Your task to perform on an android device: Search for "apple airpods" on amazon.com, select the first entry, and add it to the cart. Image 0: 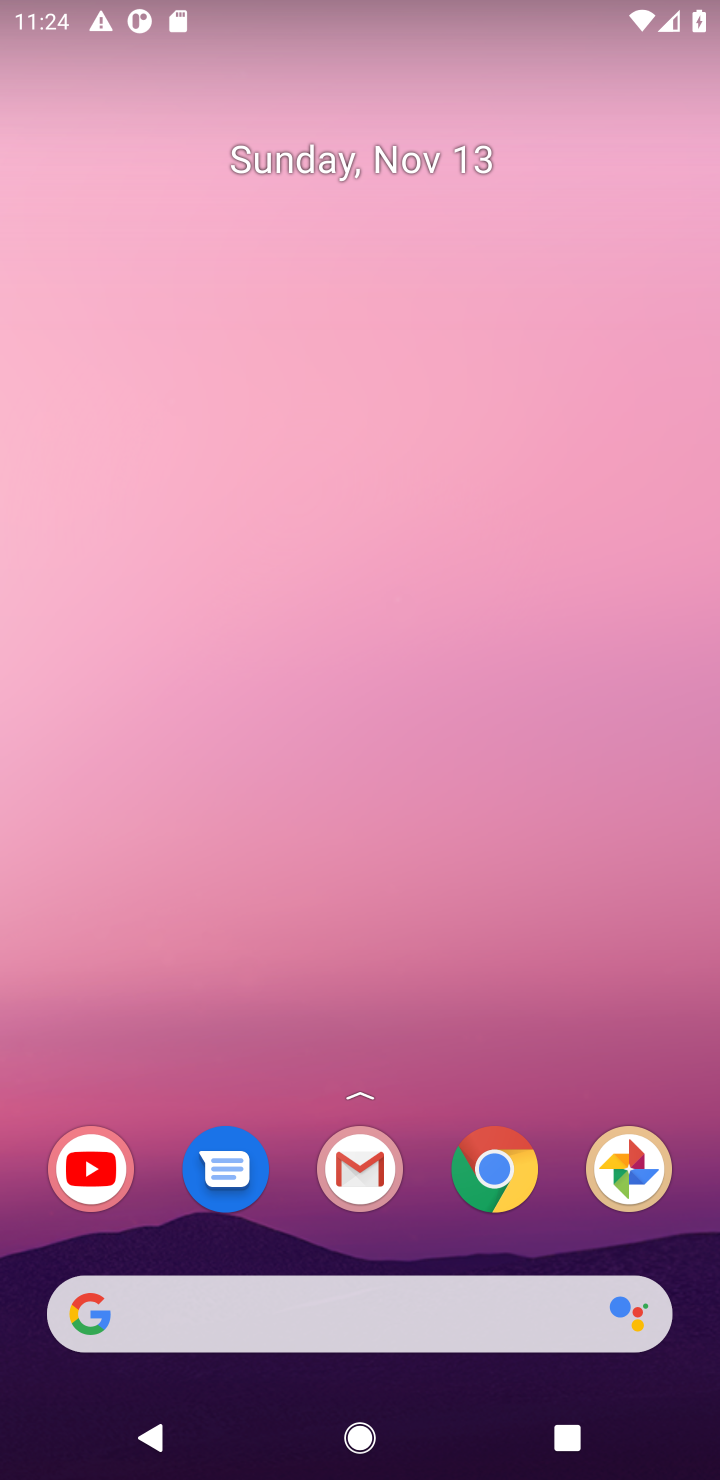
Step 0: drag from (434, 1081) to (551, 66)
Your task to perform on an android device: Search for "apple airpods" on amazon.com, select the first entry, and add it to the cart. Image 1: 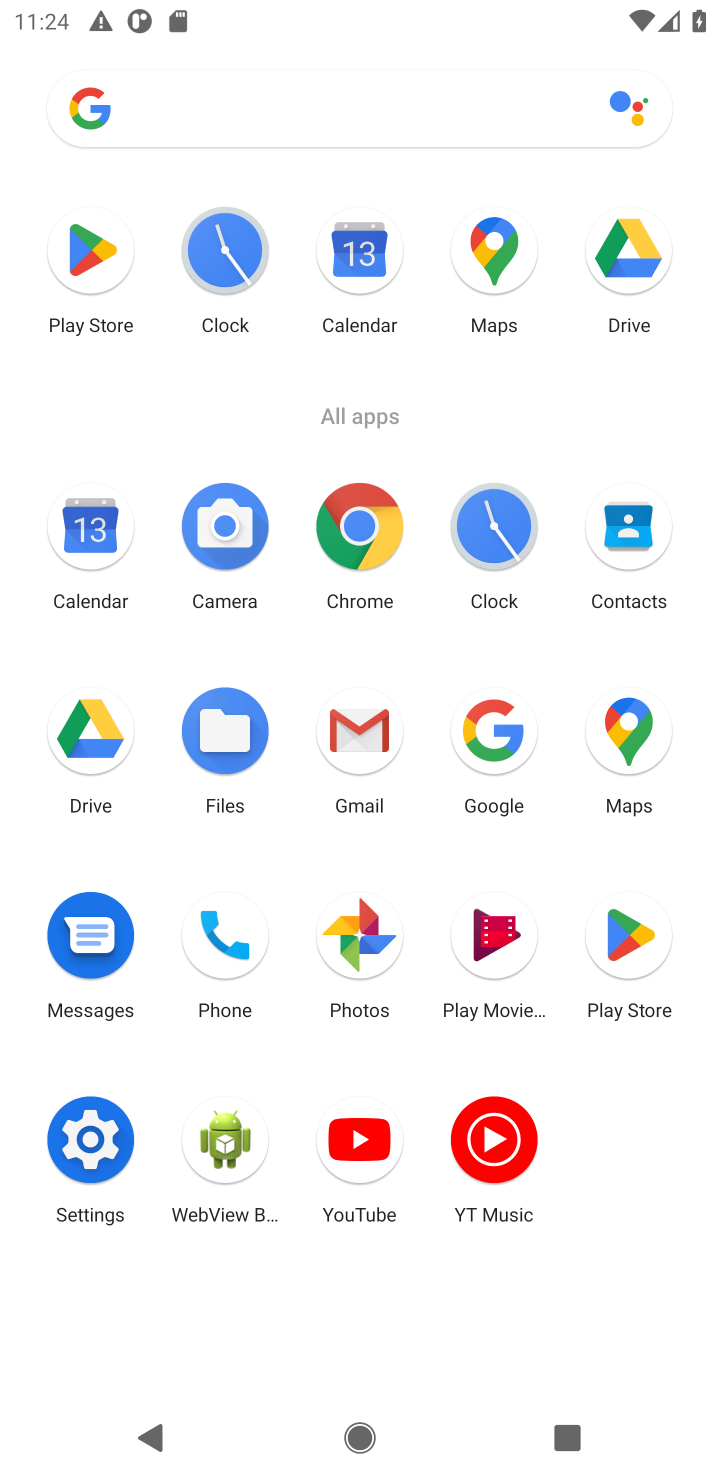
Step 1: click (350, 533)
Your task to perform on an android device: Search for "apple airpods" on amazon.com, select the first entry, and add it to the cart. Image 2: 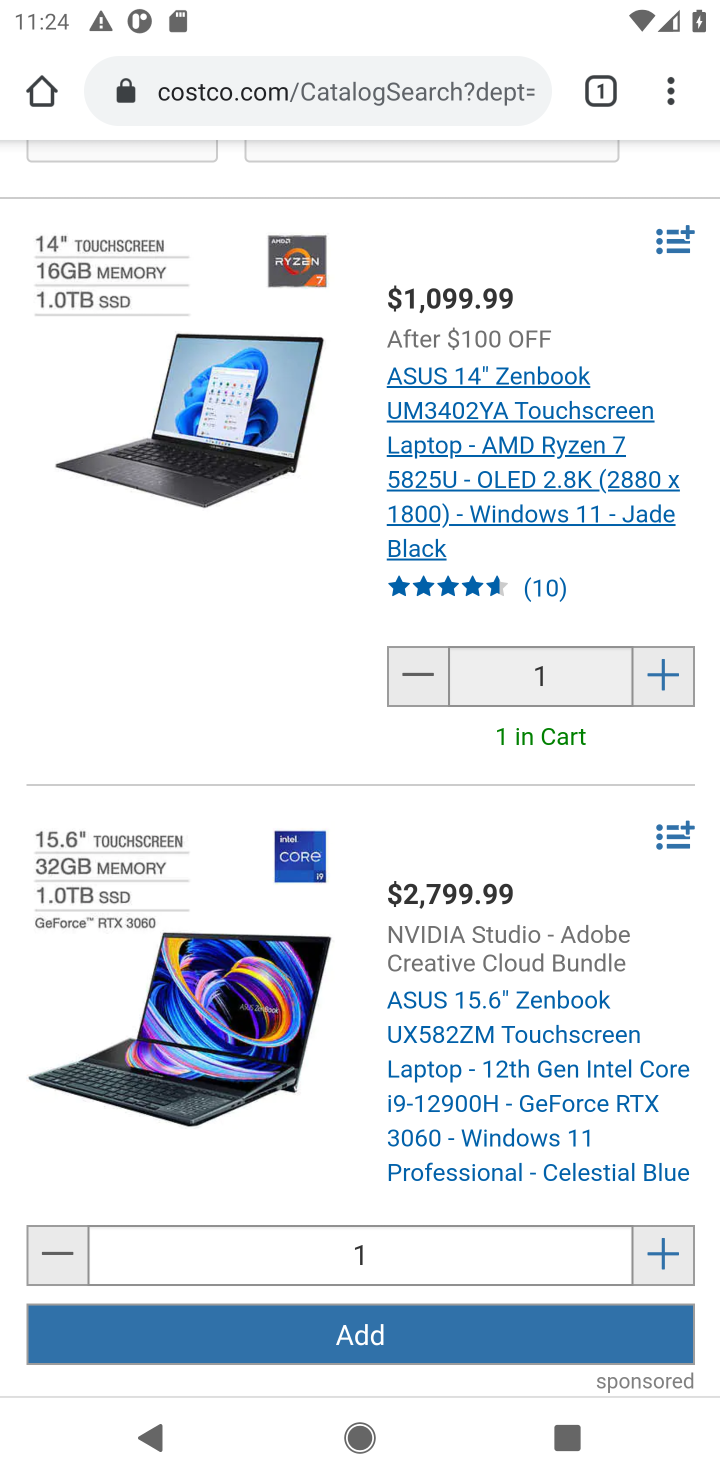
Step 2: click (359, 78)
Your task to perform on an android device: Search for "apple airpods" on amazon.com, select the first entry, and add it to the cart. Image 3: 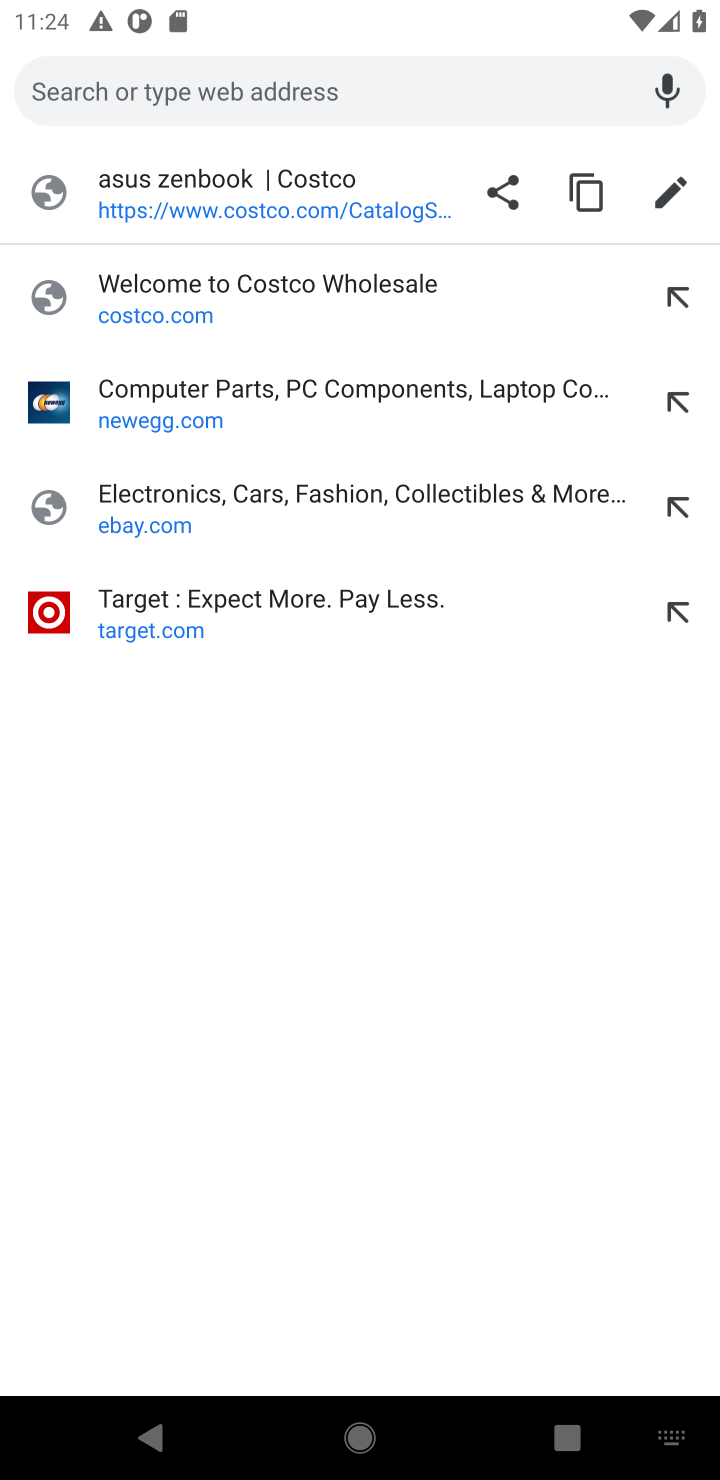
Step 3: type "amazon.com"
Your task to perform on an android device: Search for "apple airpods" on amazon.com, select the first entry, and add it to the cart. Image 4: 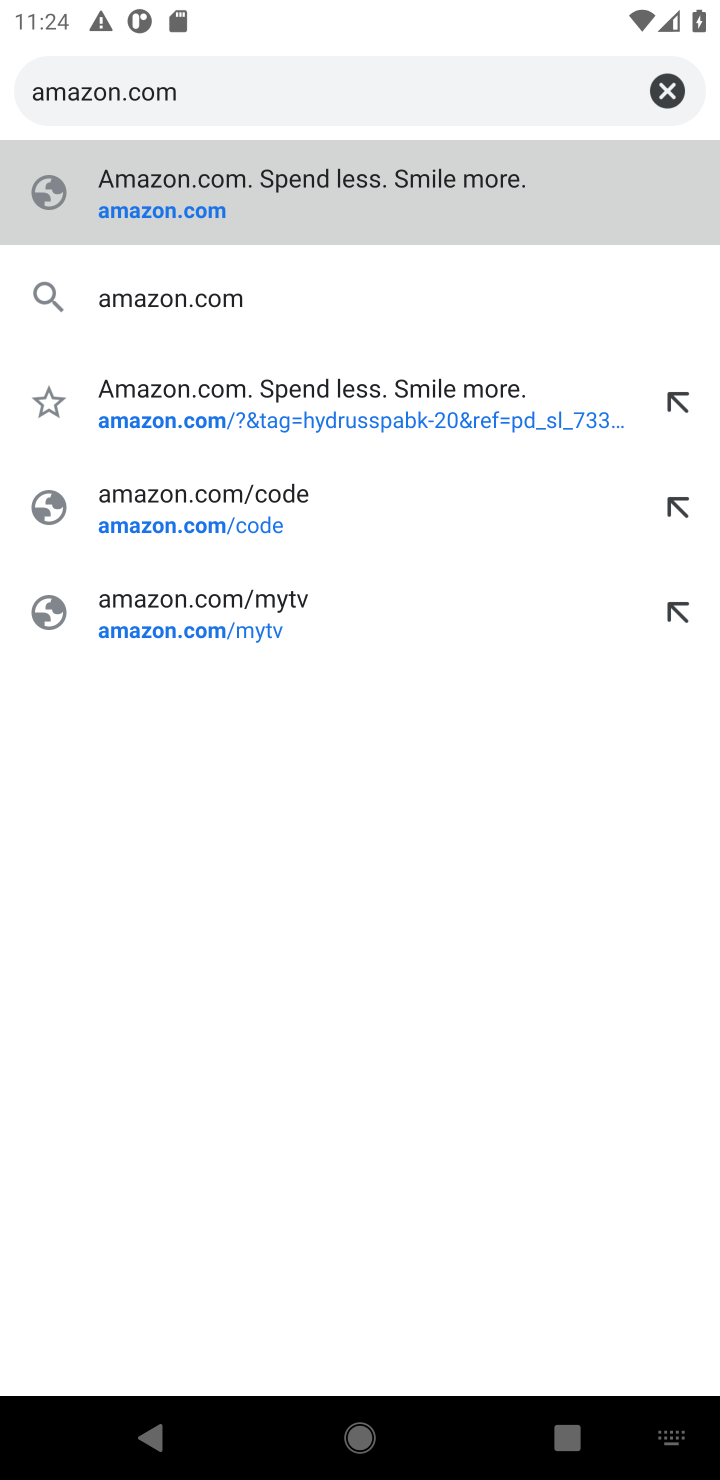
Step 4: press enter
Your task to perform on an android device: Search for "apple airpods" on amazon.com, select the first entry, and add it to the cart. Image 5: 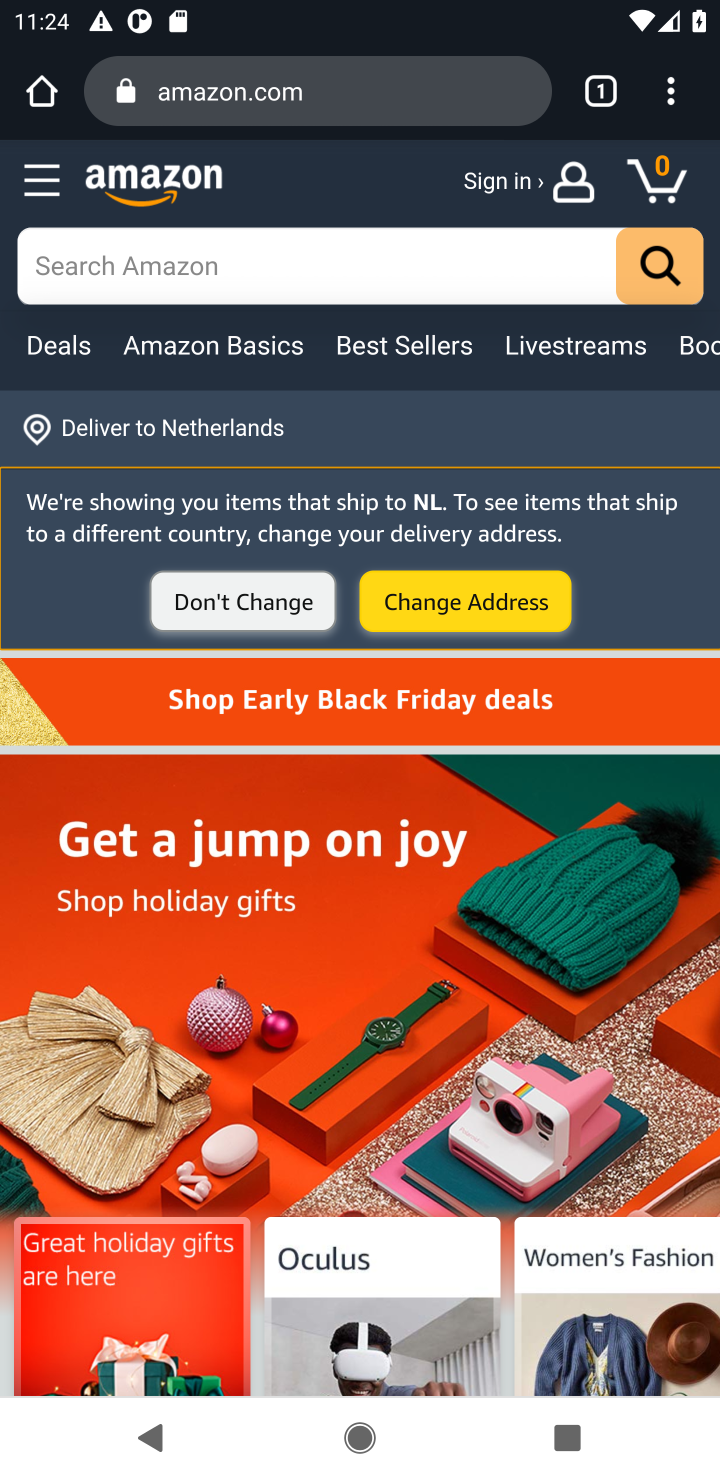
Step 5: click (487, 287)
Your task to perform on an android device: Search for "apple airpods" on amazon.com, select the first entry, and add it to the cart. Image 6: 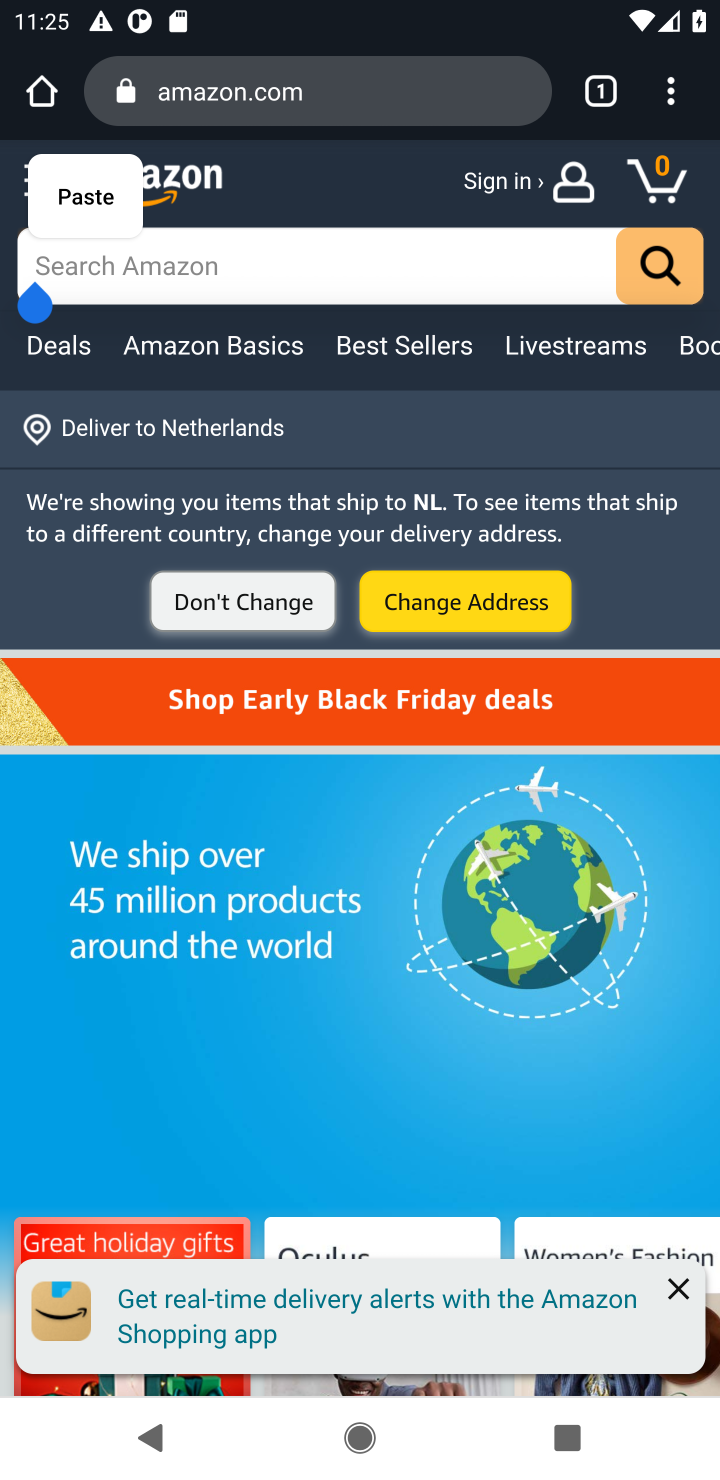
Step 6: type "apple airpods"
Your task to perform on an android device: Search for "apple airpods" on amazon.com, select the first entry, and add it to the cart. Image 7: 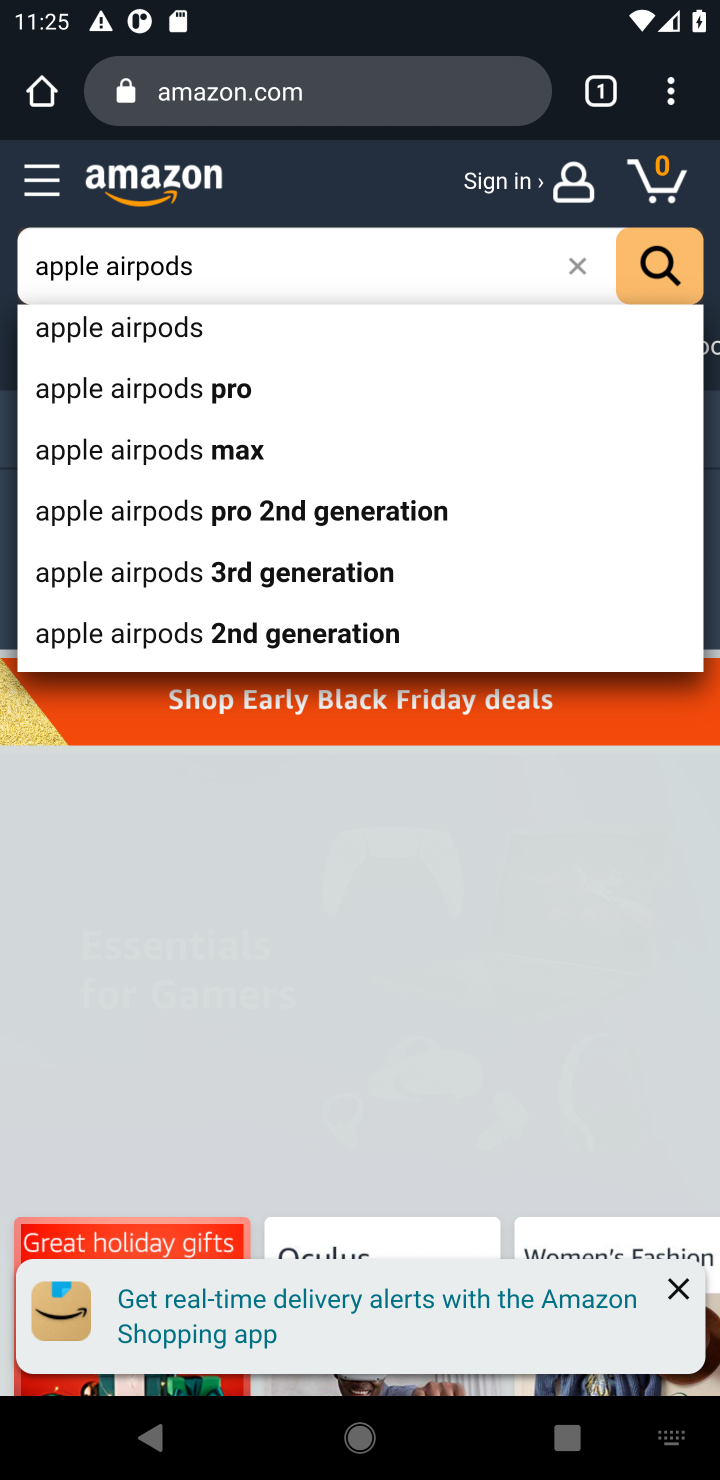
Step 7: click (358, 271)
Your task to perform on an android device: Search for "apple airpods" on amazon.com, select the first entry, and add it to the cart. Image 8: 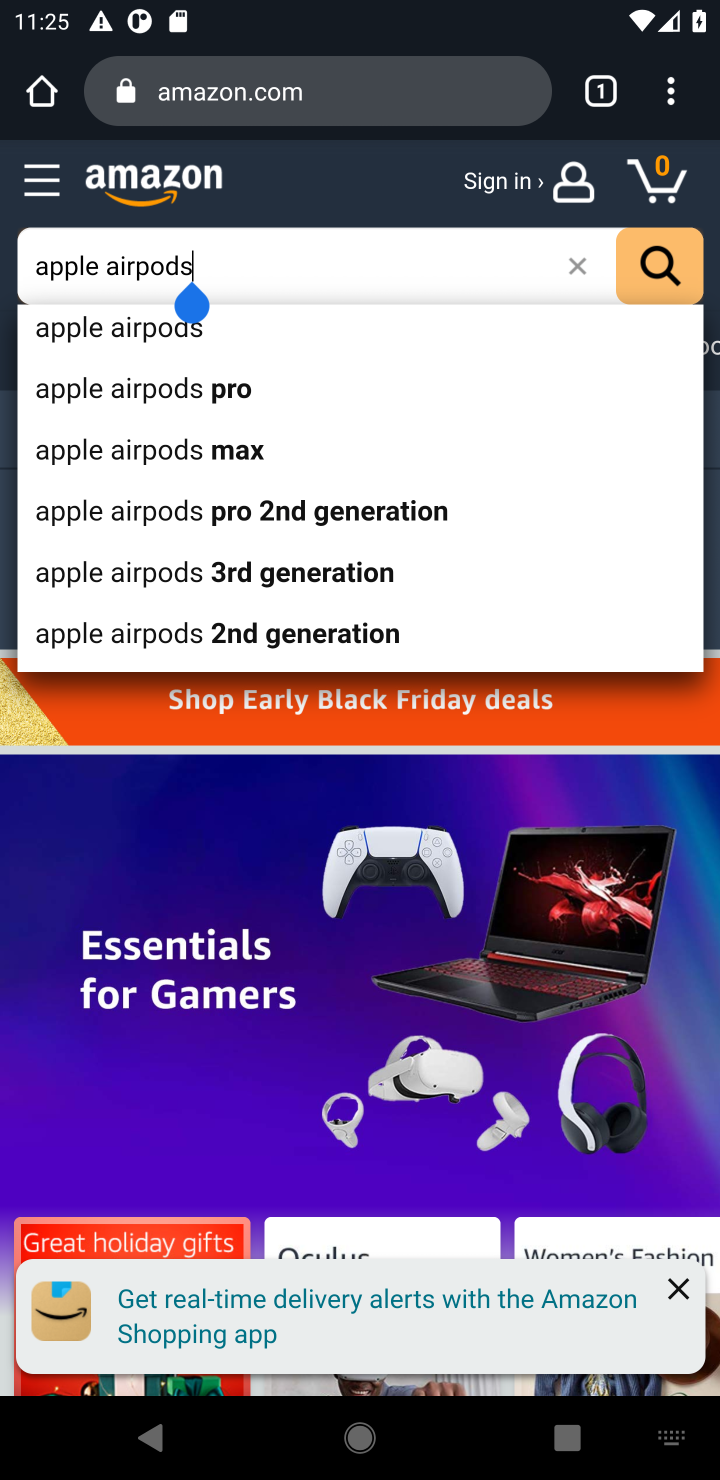
Step 8: press enter
Your task to perform on an android device: Search for "apple airpods" on amazon.com, select the first entry, and add it to the cart. Image 9: 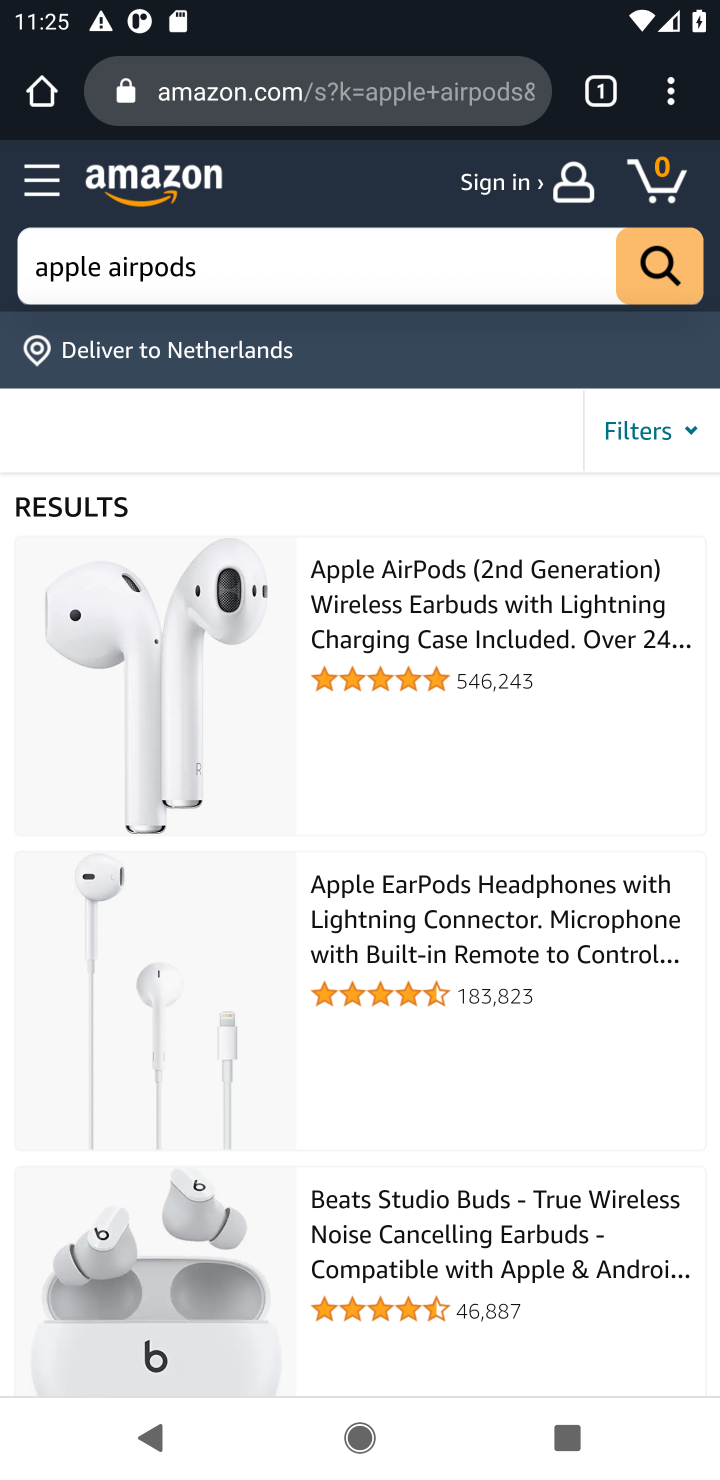
Step 9: click (414, 605)
Your task to perform on an android device: Search for "apple airpods" on amazon.com, select the first entry, and add it to the cart. Image 10: 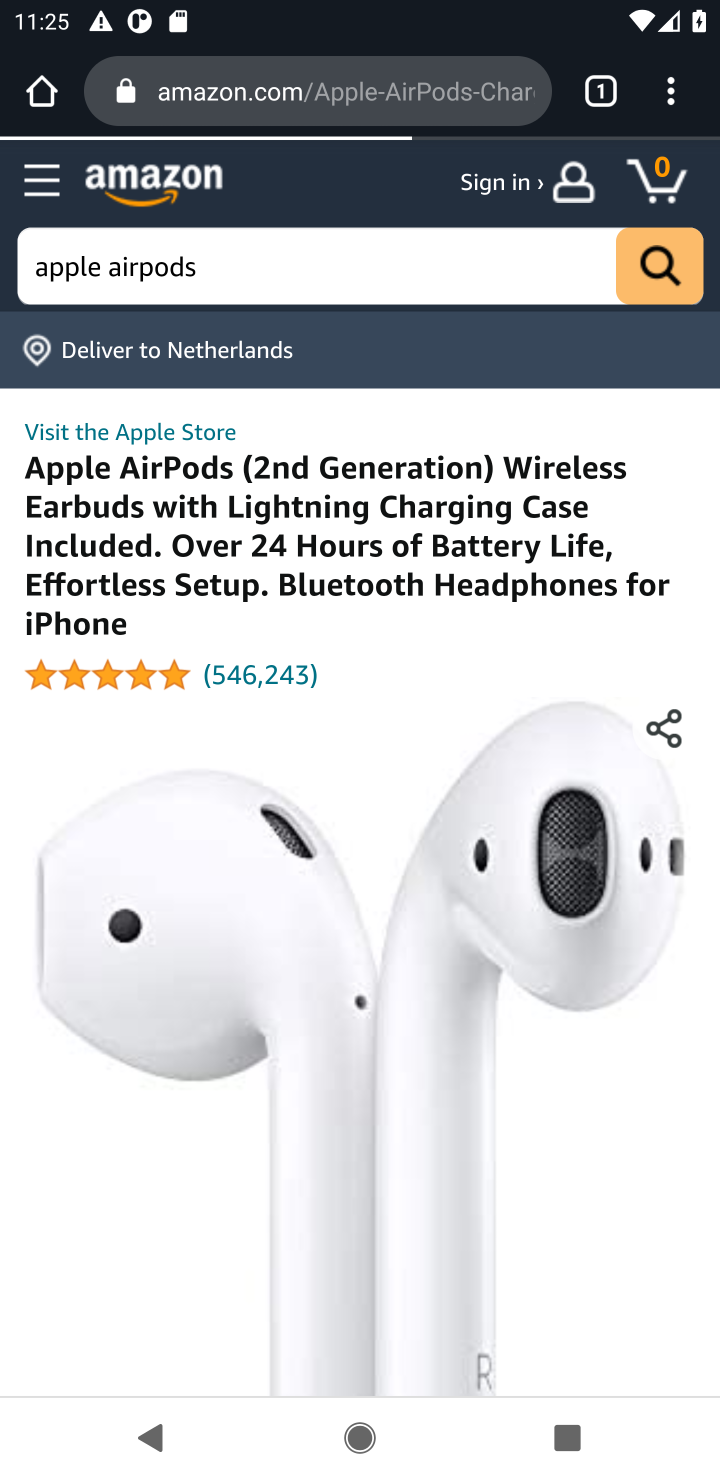
Step 10: task complete